Your task to perform on an android device: move a message to another label in the gmail app Image 0: 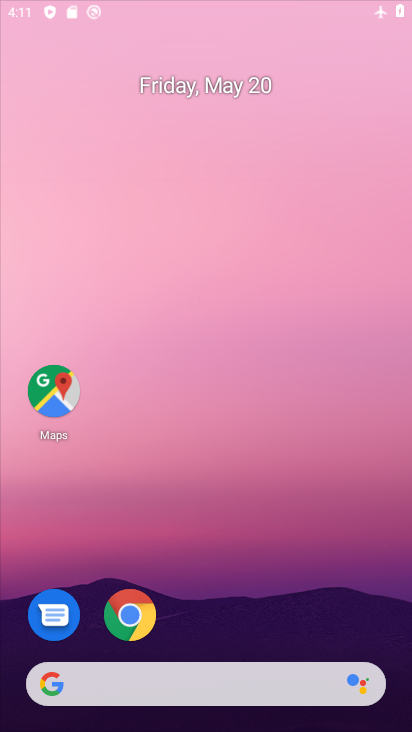
Step 0: drag from (230, 597) to (246, 102)
Your task to perform on an android device: move a message to another label in the gmail app Image 1: 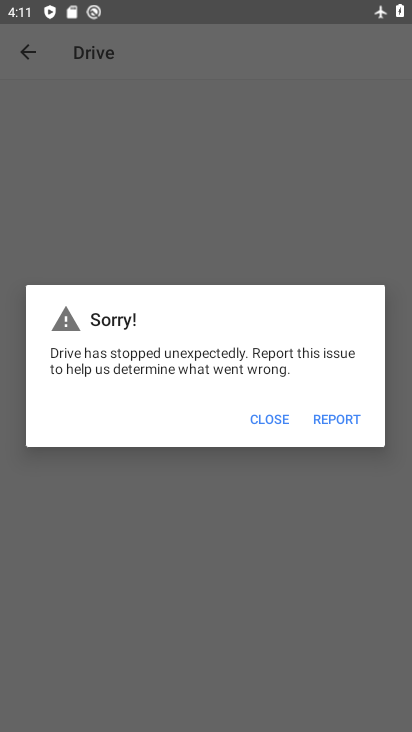
Step 1: press home button
Your task to perform on an android device: move a message to another label in the gmail app Image 2: 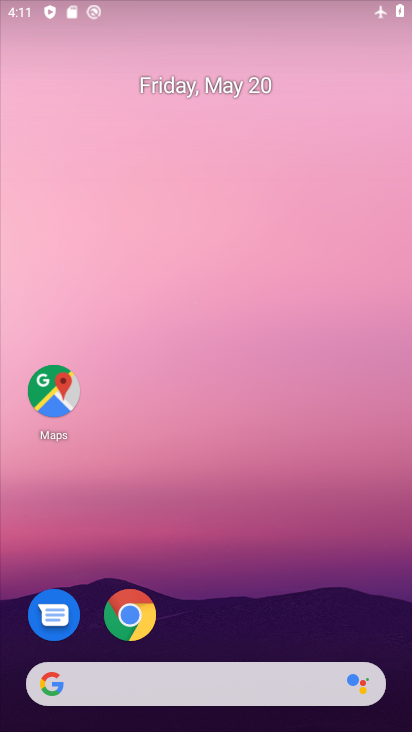
Step 2: drag from (238, 598) to (233, 141)
Your task to perform on an android device: move a message to another label in the gmail app Image 3: 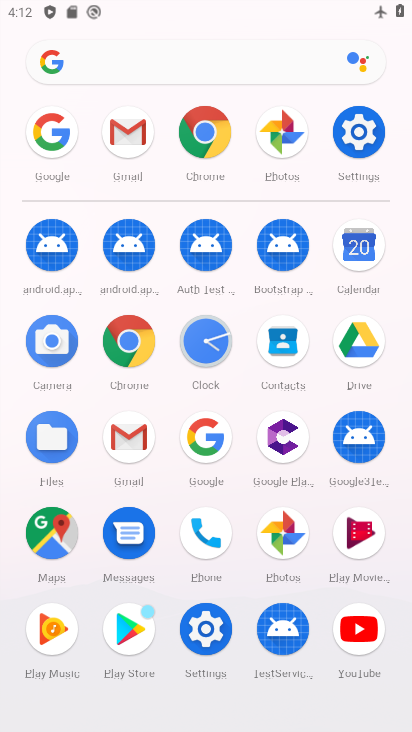
Step 3: click (133, 456)
Your task to perform on an android device: move a message to another label in the gmail app Image 4: 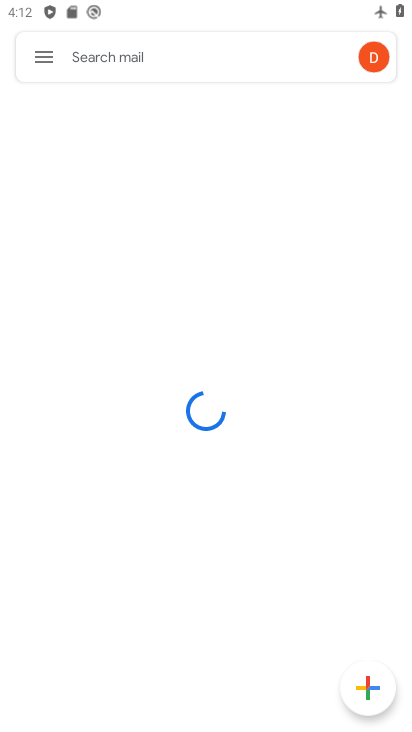
Step 4: click (40, 65)
Your task to perform on an android device: move a message to another label in the gmail app Image 5: 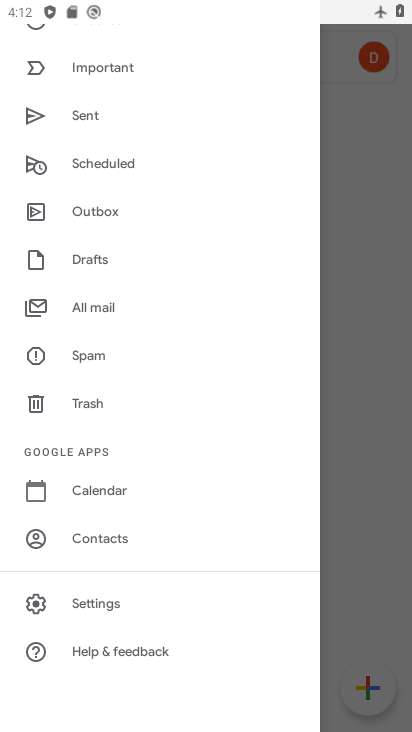
Step 5: click (114, 307)
Your task to perform on an android device: move a message to another label in the gmail app Image 6: 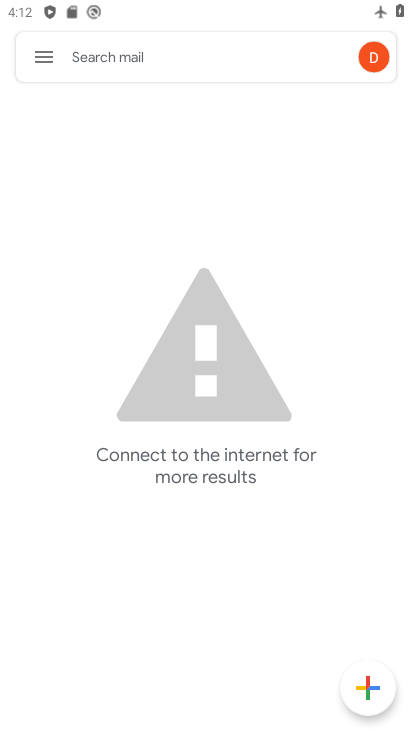
Step 6: task complete